Your task to perform on an android device: change text size in settings app Image 0: 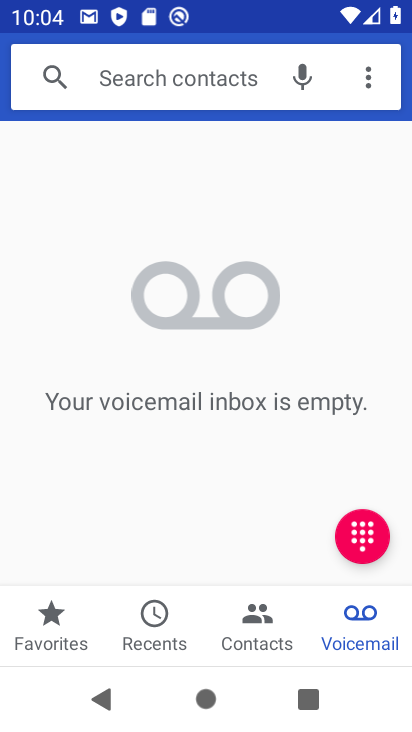
Step 0: press home button
Your task to perform on an android device: change text size in settings app Image 1: 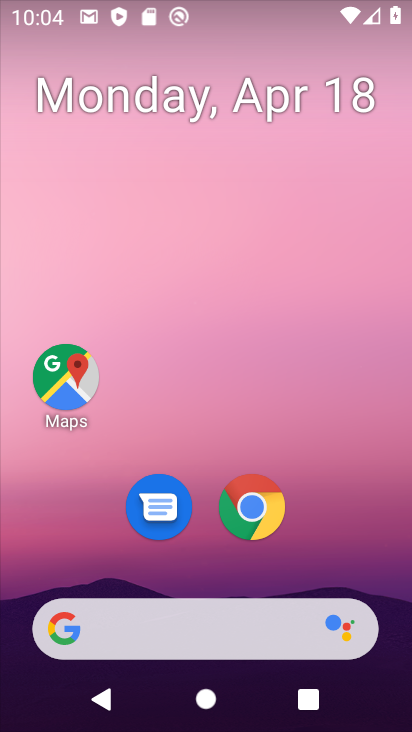
Step 1: drag from (347, 500) to (360, 49)
Your task to perform on an android device: change text size in settings app Image 2: 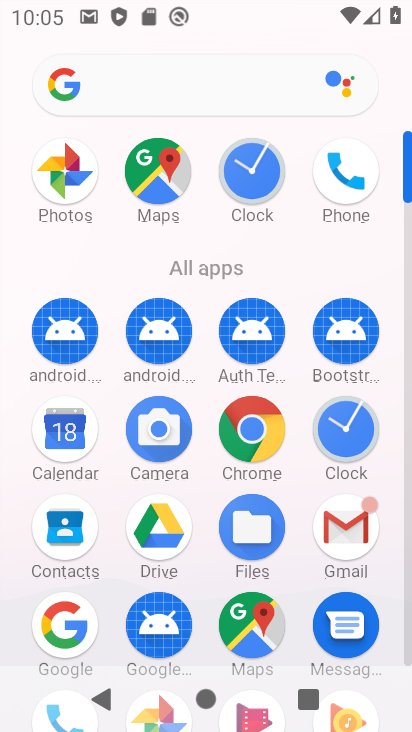
Step 2: drag from (203, 582) to (205, 188)
Your task to perform on an android device: change text size in settings app Image 3: 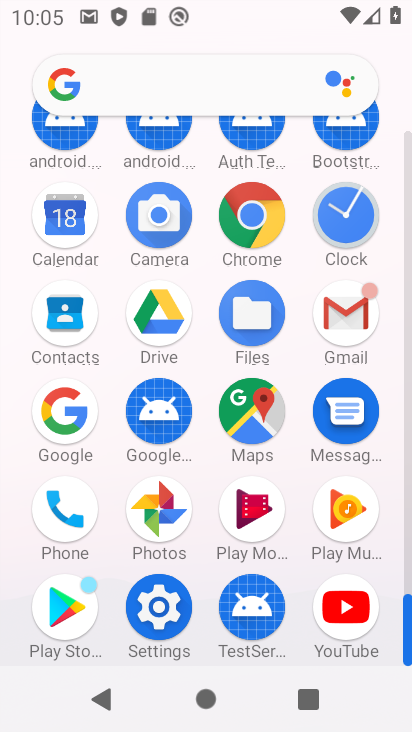
Step 3: click (166, 602)
Your task to perform on an android device: change text size in settings app Image 4: 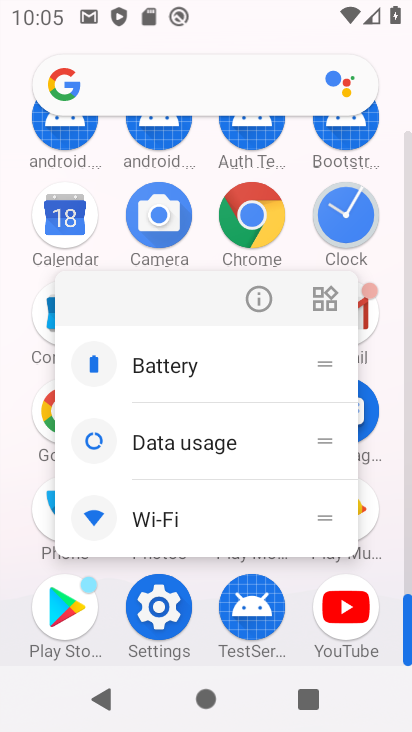
Step 4: click (168, 604)
Your task to perform on an android device: change text size in settings app Image 5: 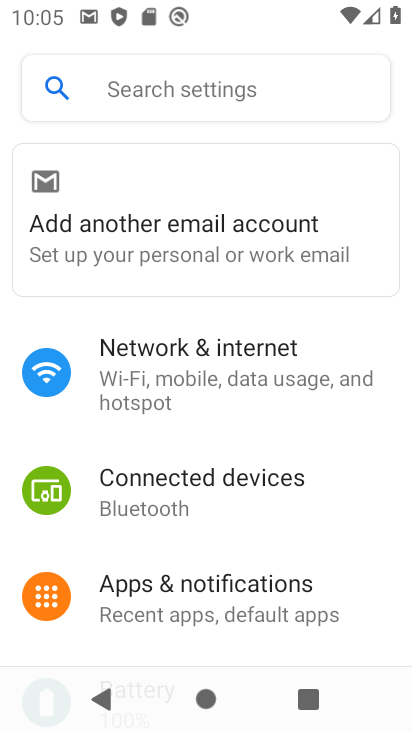
Step 5: drag from (225, 517) to (247, 272)
Your task to perform on an android device: change text size in settings app Image 6: 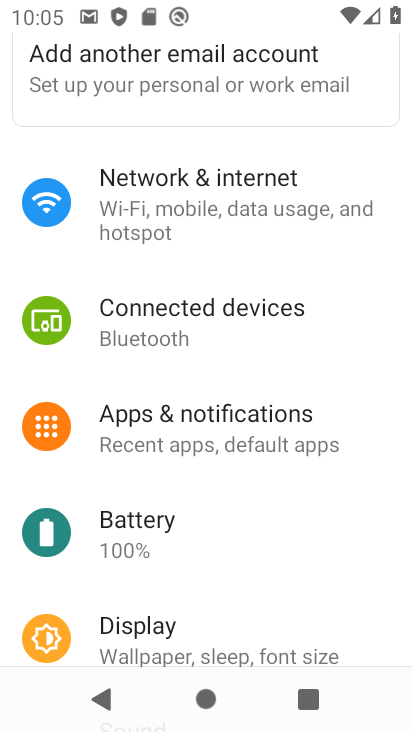
Step 6: drag from (246, 568) to (235, 214)
Your task to perform on an android device: change text size in settings app Image 7: 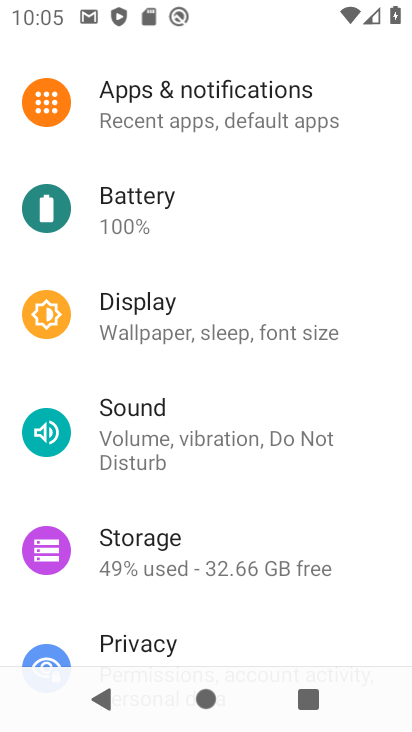
Step 7: click (245, 318)
Your task to perform on an android device: change text size in settings app Image 8: 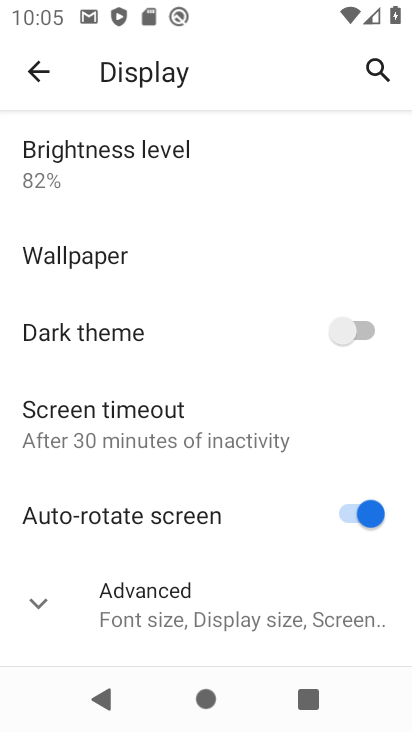
Step 8: click (35, 599)
Your task to perform on an android device: change text size in settings app Image 9: 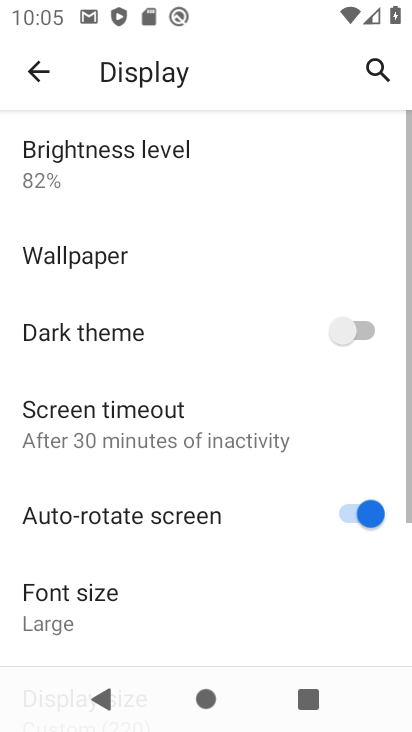
Step 9: drag from (224, 579) to (258, 194)
Your task to perform on an android device: change text size in settings app Image 10: 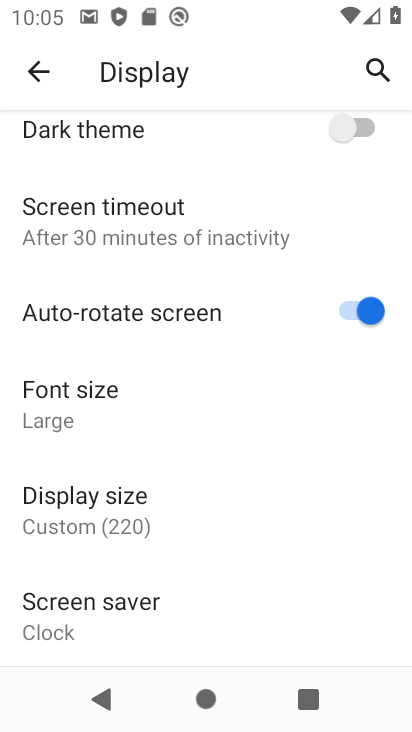
Step 10: click (137, 412)
Your task to perform on an android device: change text size in settings app Image 11: 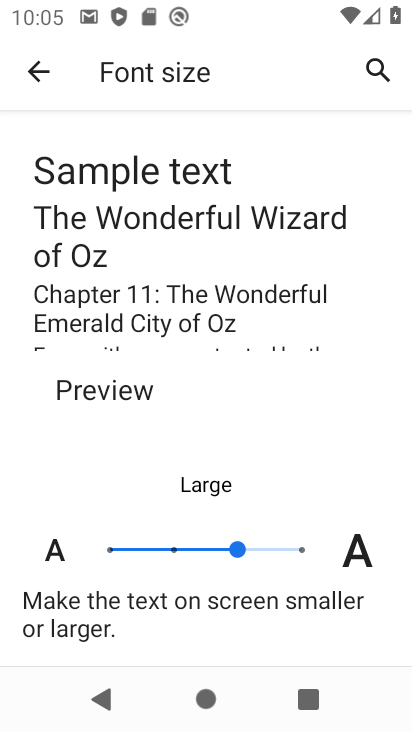
Step 11: click (167, 547)
Your task to perform on an android device: change text size in settings app Image 12: 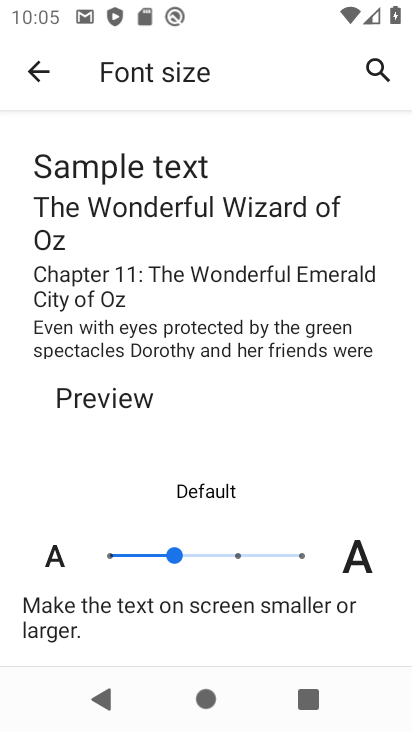
Step 12: task complete